Your task to perform on an android device: turn on sleep mode Image 0: 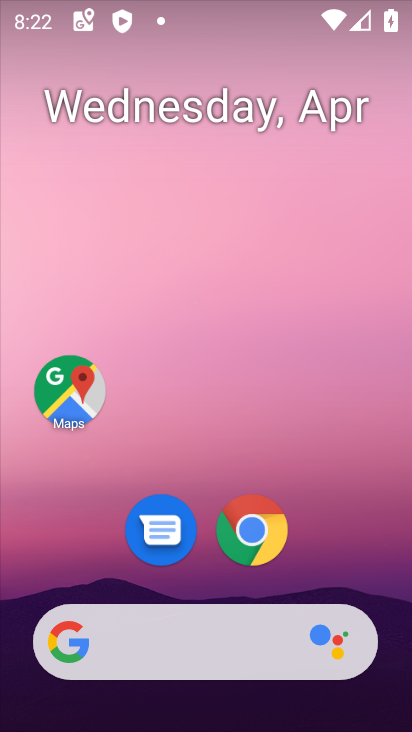
Step 0: drag from (388, 608) to (329, 218)
Your task to perform on an android device: turn on sleep mode Image 1: 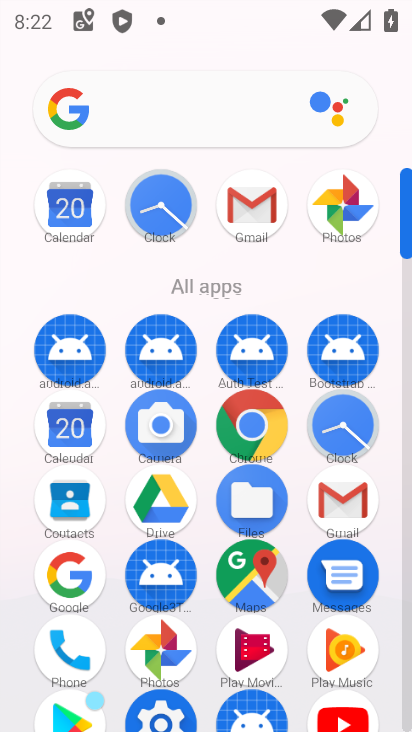
Step 1: click (164, 705)
Your task to perform on an android device: turn on sleep mode Image 2: 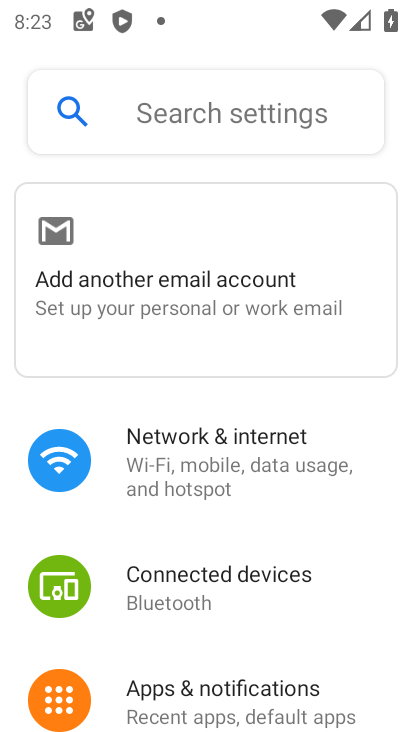
Step 2: drag from (273, 649) to (295, 190)
Your task to perform on an android device: turn on sleep mode Image 3: 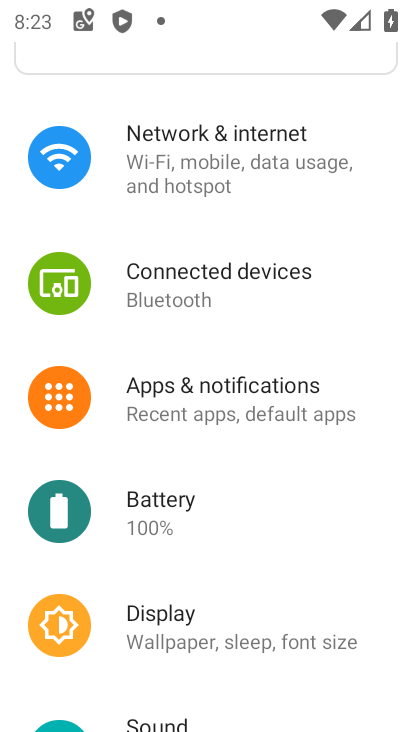
Step 3: click (312, 649)
Your task to perform on an android device: turn on sleep mode Image 4: 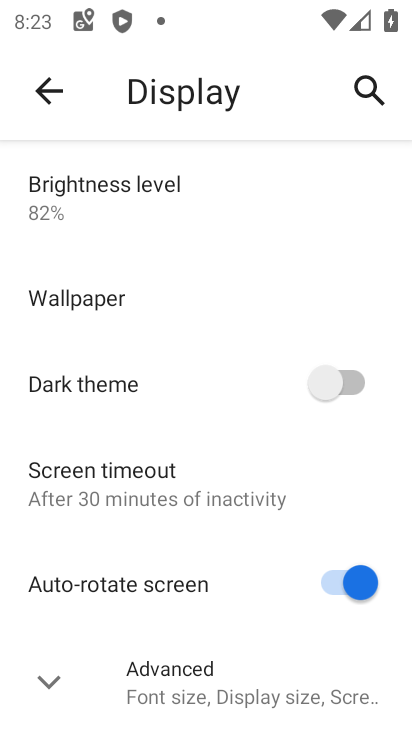
Step 4: drag from (273, 634) to (249, 361)
Your task to perform on an android device: turn on sleep mode Image 5: 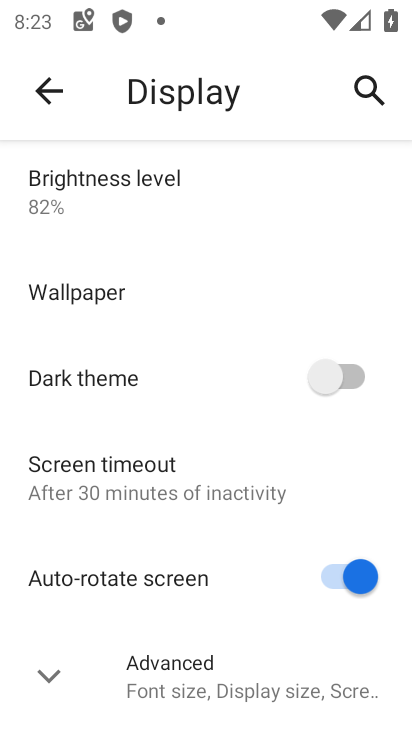
Step 5: click (236, 667)
Your task to perform on an android device: turn on sleep mode Image 6: 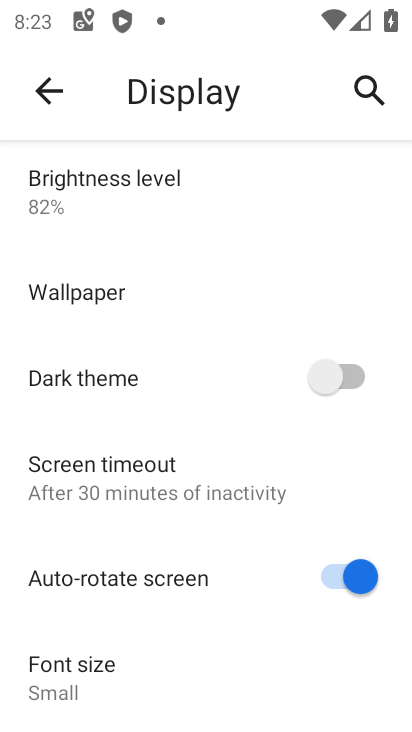
Step 6: task complete